Your task to perform on an android device: Go to location settings Image 0: 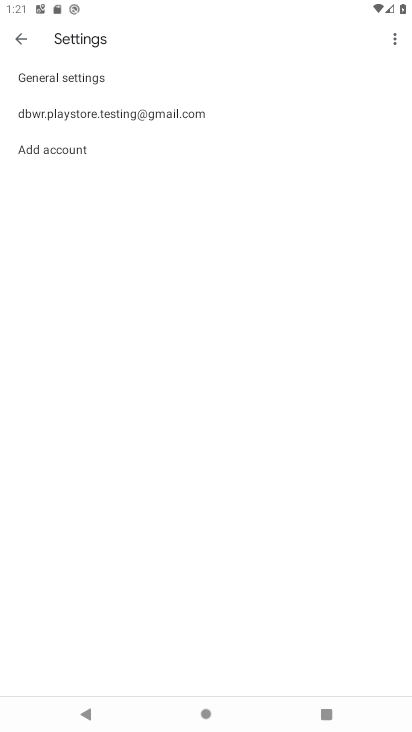
Step 0: click (11, 33)
Your task to perform on an android device: Go to location settings Image 1: 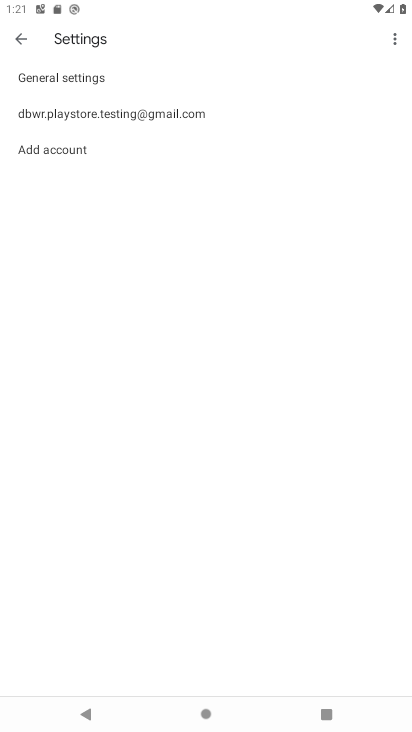
Step 1: click (20, 39)
Your task to perform on an android device: Go to location settings Image 2: 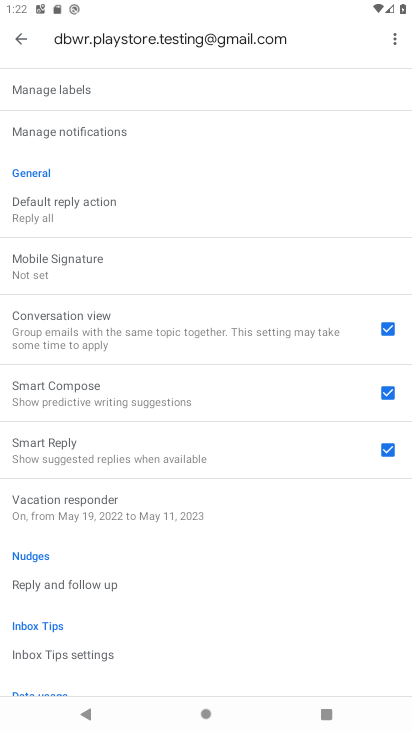
Step 2: press home button
Your task to perform on an android device: Go to location settings Image 3: 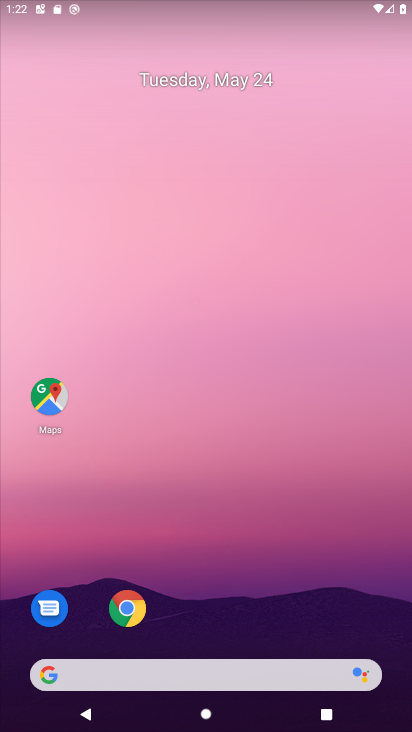
Step 3: drag from (238, 622) to (184, 9)
Your task to perform on an android device: Go to location settings Image 4: 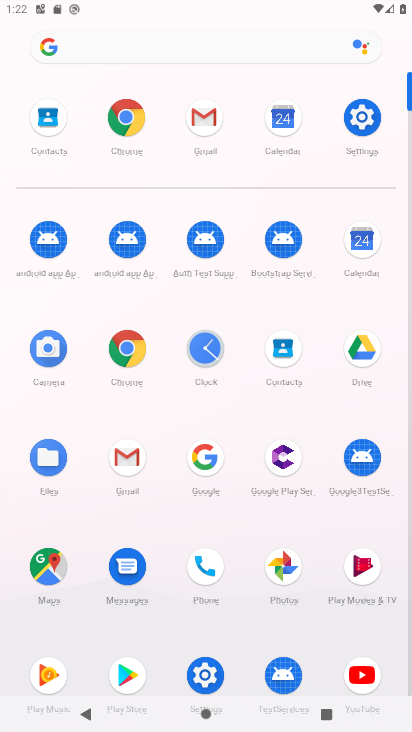
Step 4: click (363, 130)
Your task to perform on an android device: Go to location settings Image 5: 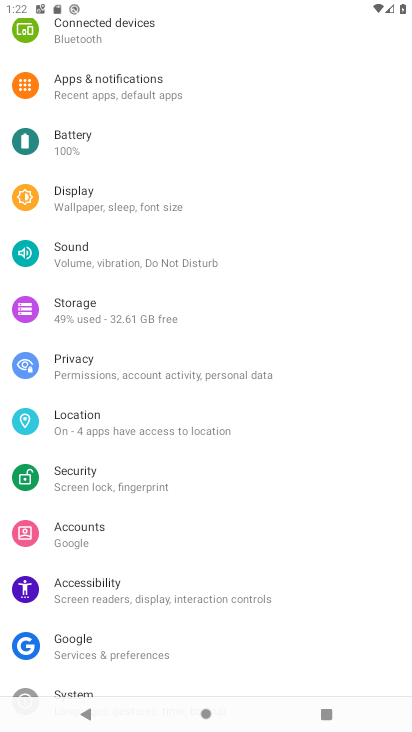
Step 5: click (174, 427)
Your task to perform on an android device: Go to location settings Image 6: 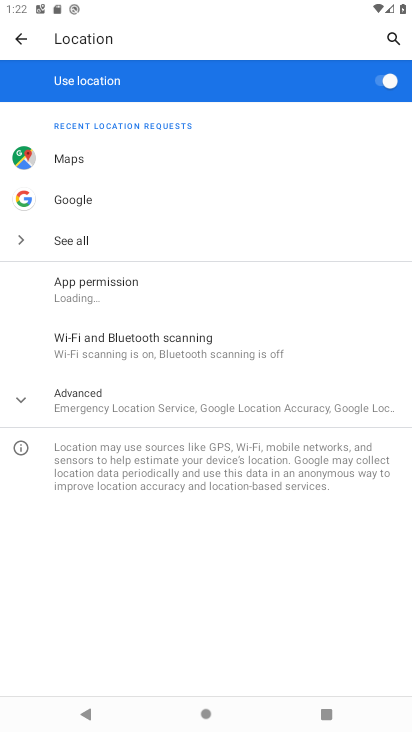
Step 6: task complete